Your task to perform on an android device: Go to internet settings Image 0: 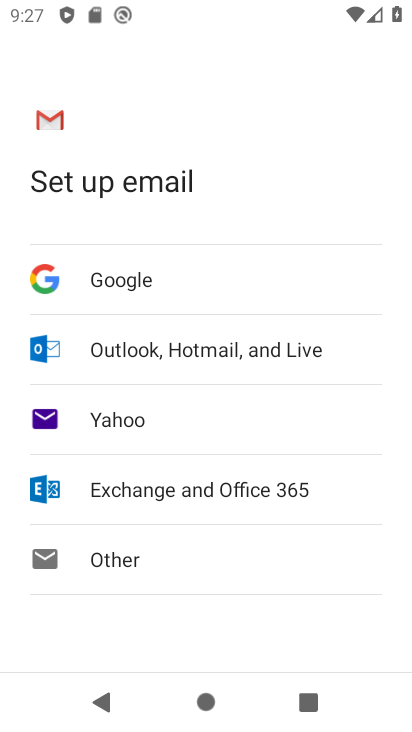
Step 0: press back button
Your task to perform on an android device: Go to internet settings Image 1: 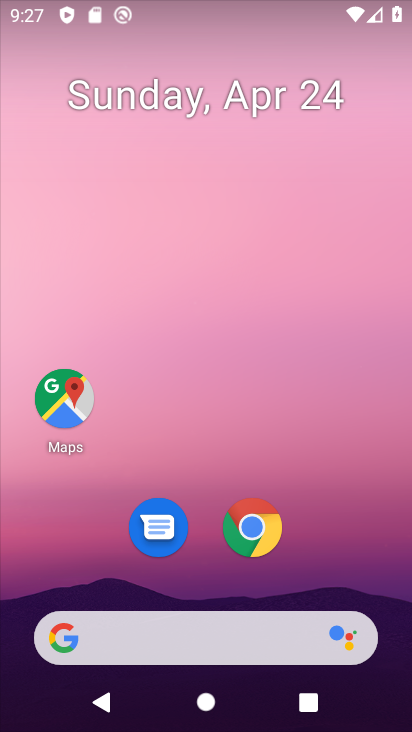
Step 1: drag from (191, 535) to (241, 95)
Your task to perform on an android device: Go to internet settings Image 2: 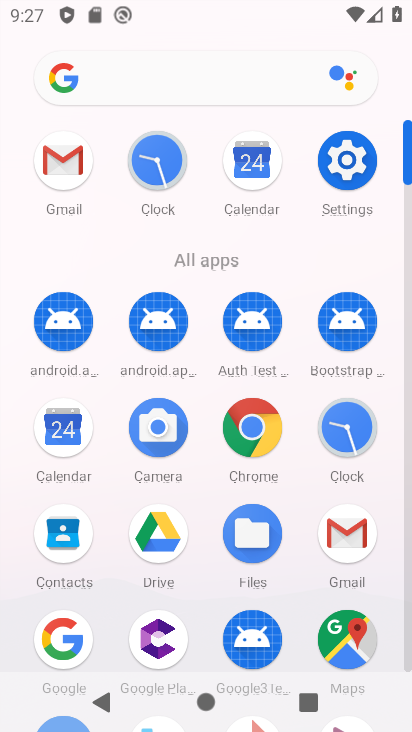
Step 2: click (348, 155)
Your task to perform on an android device: Go to internet settings Image 3: 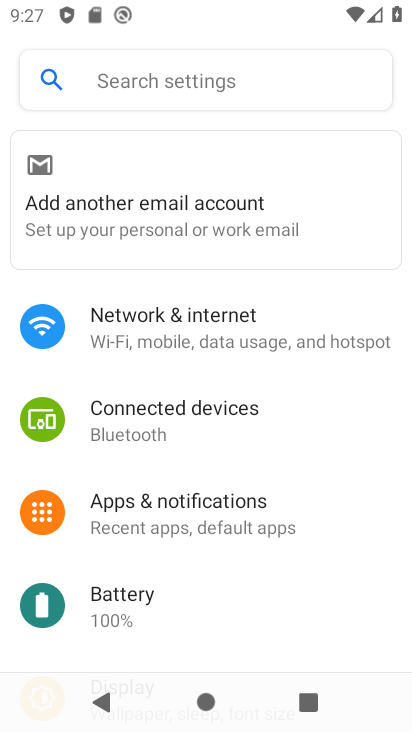
Step 3: click (187, 333)
Your task to perform on an android device: Go to internet settings Image 4: 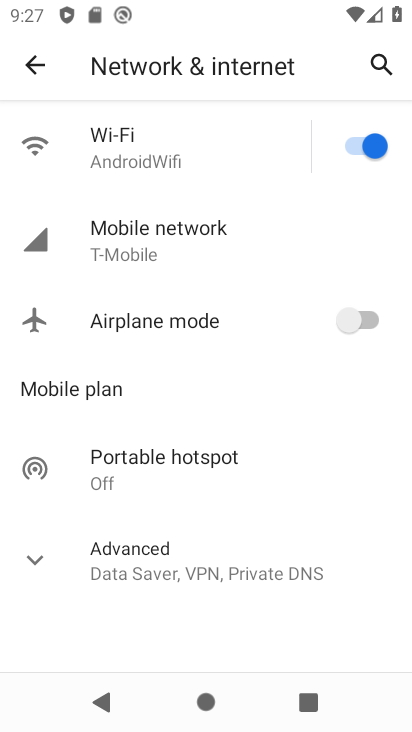
Step 4: task complete